Your task to perform on an android device: open app "Instagram" (install if not already installed) Image 0: 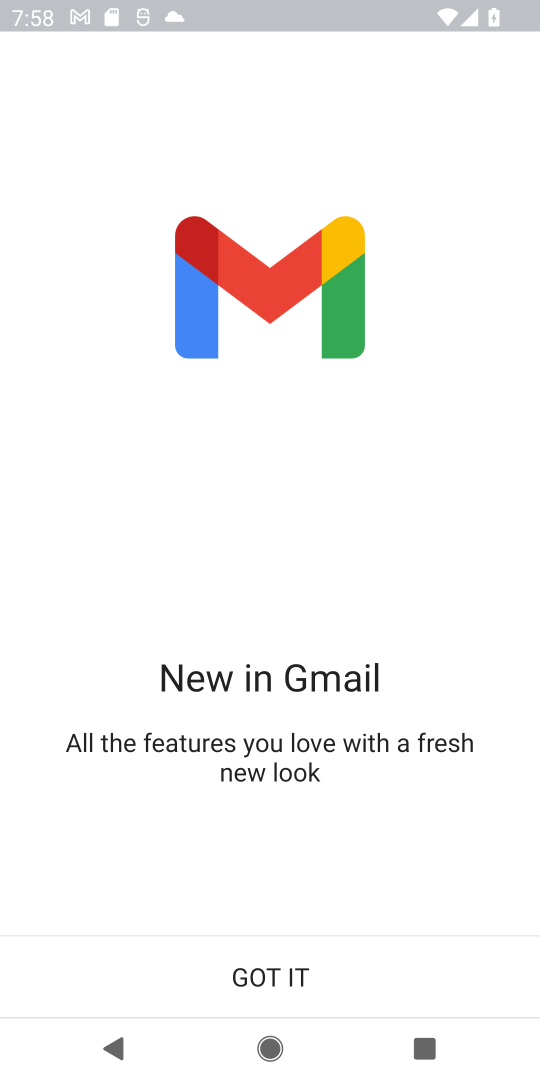
Step 0: press home button
Your task to perform on an android device: open app "Instagram" (install if not already installed) Image 1: 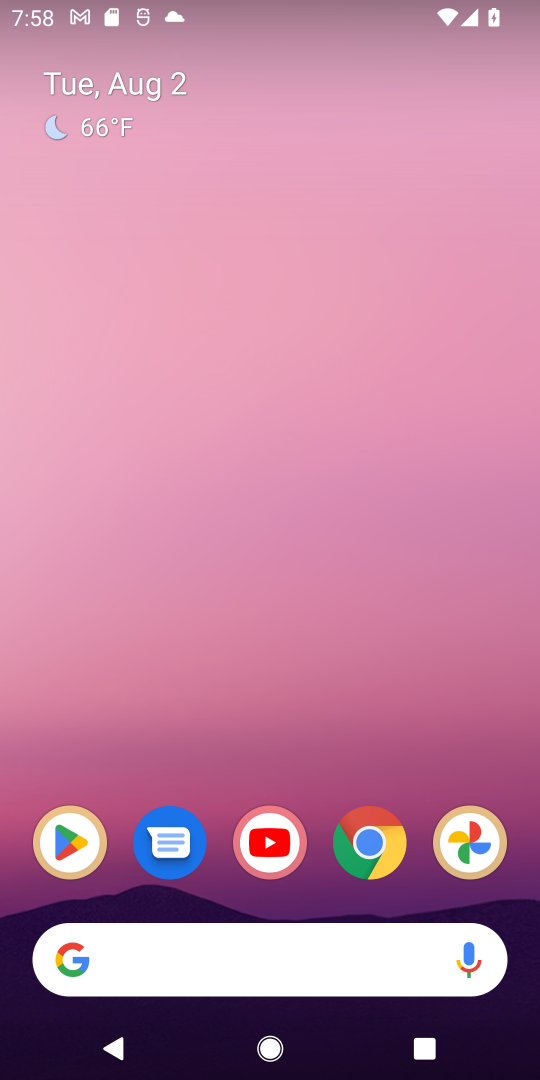
Step 1: click (51, 839)
Your task to perform on an android device: open app "Instagram" (install if not already installed) Image 2: 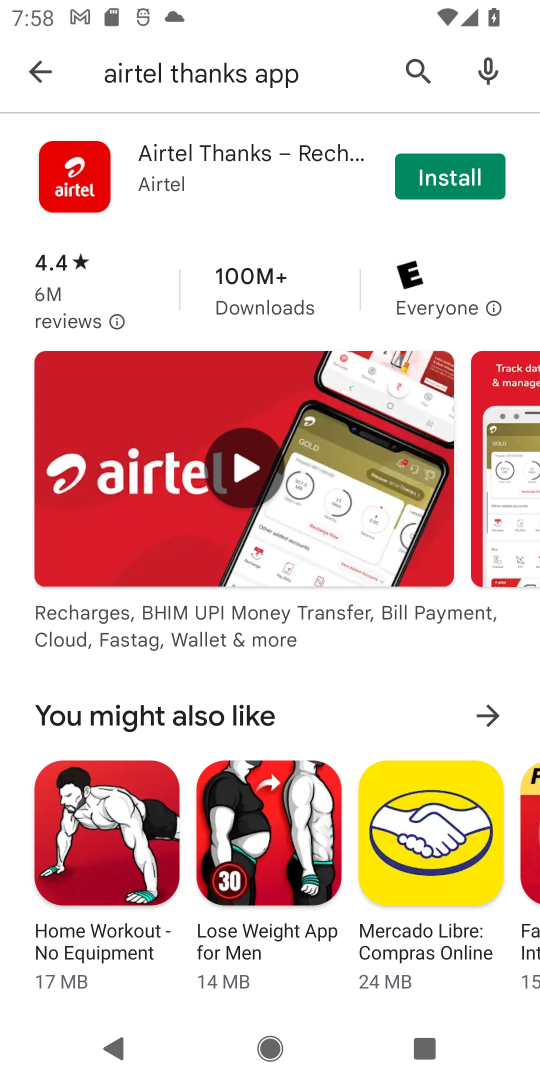
Step 2: click (265, 84)
Your task to perform on an android device: open app "Instagram" (install if not already installed) Image 3: 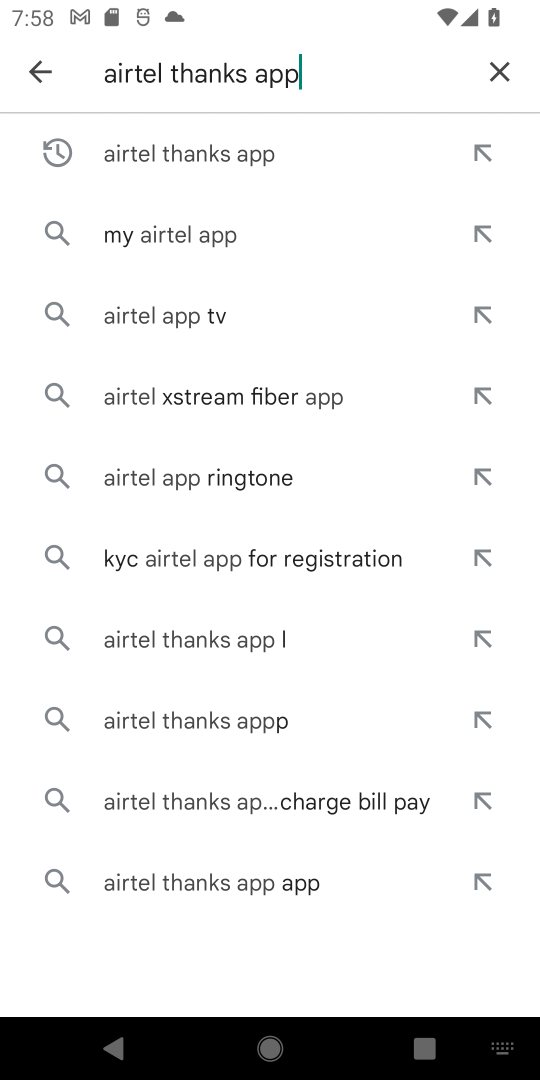
Step 3: click (497, 76)
Your task to perform on an android device: open app "Instagram" (install if not already installed) Image 4: 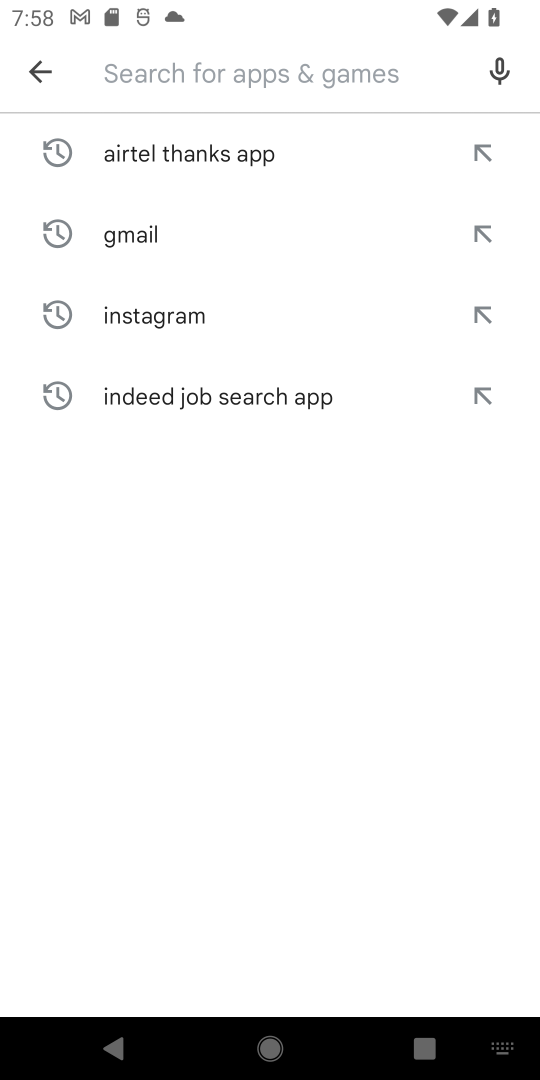
Step 4: type "instagram"
Your task to perform on an android device: open app "Instagram" (install if not already installed) Image 5: 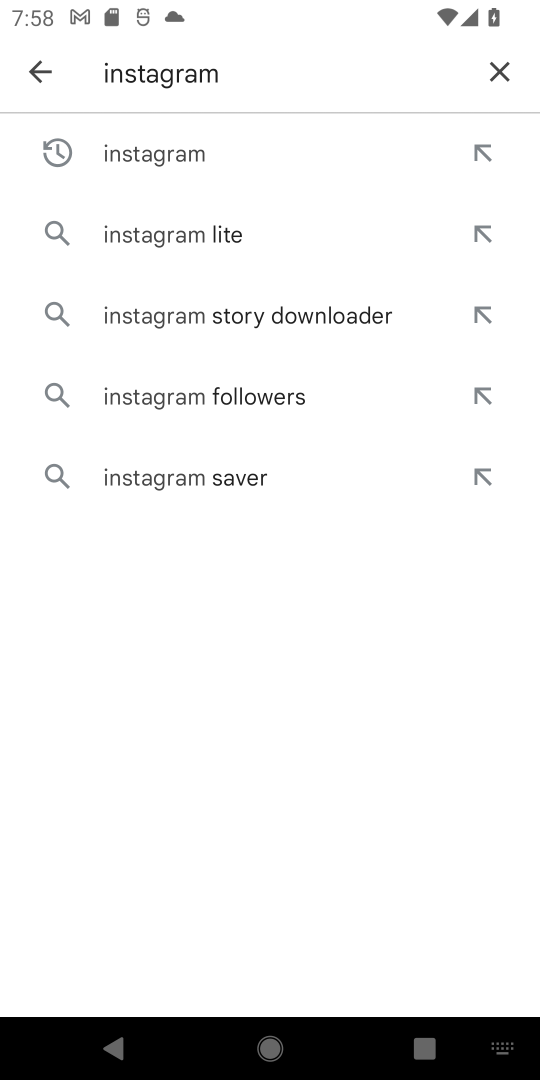
Step 5: click (183, 168)
Your task to perform on an android device: open app "Instagram" (install if not already installed) Image 6: 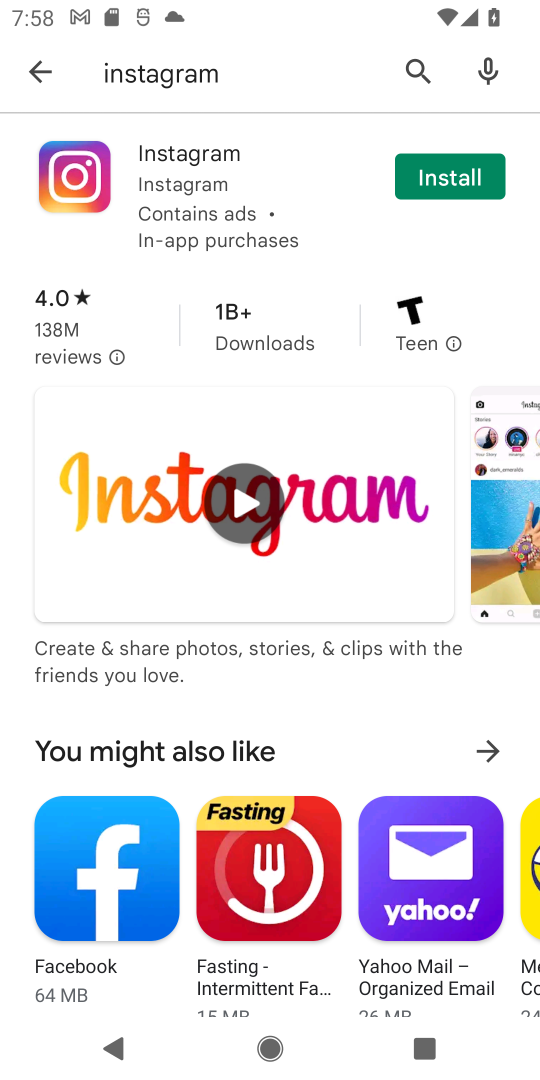
Step 6: click (450, 183)
Your task to perform on an android device: open app "Instagram" (install if not already installed) Image 7: 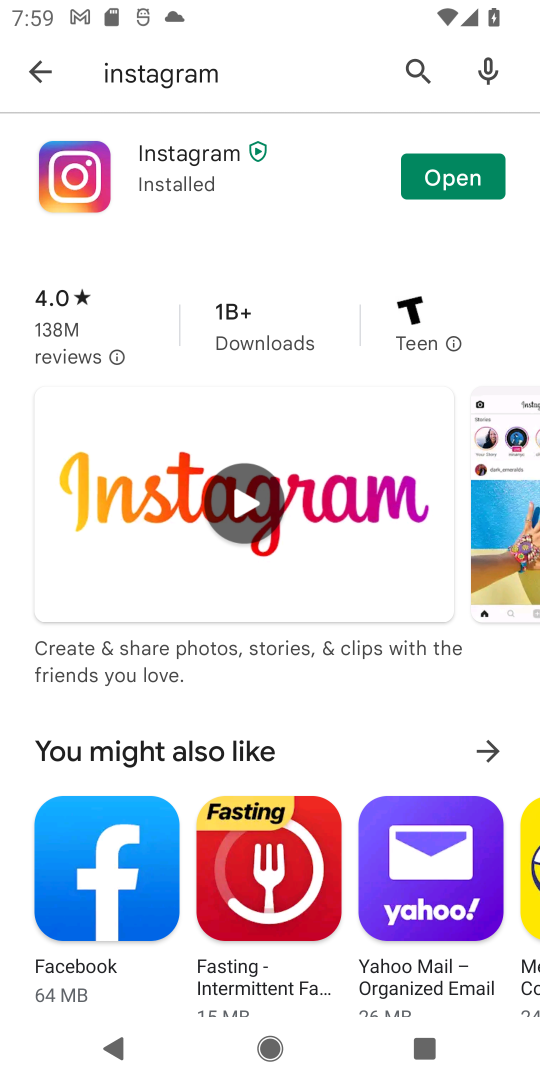
Step 7: click (433, 169)
Your task to perform on an android device: open app "Instagram" (install if not already installed) Image 8: 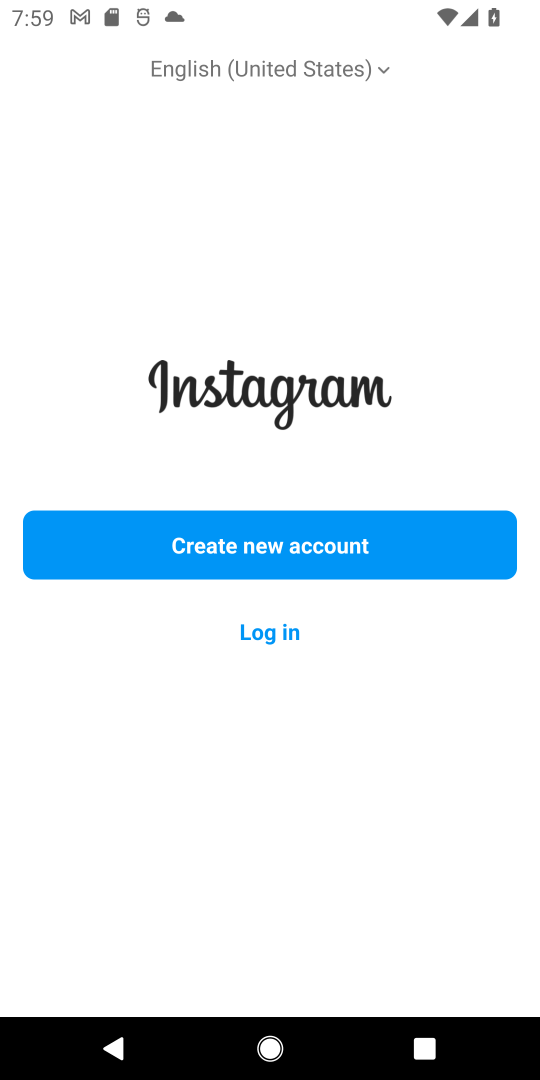
Step 8: task complete